Your task to perform on an android device: change timer sound Image 0: 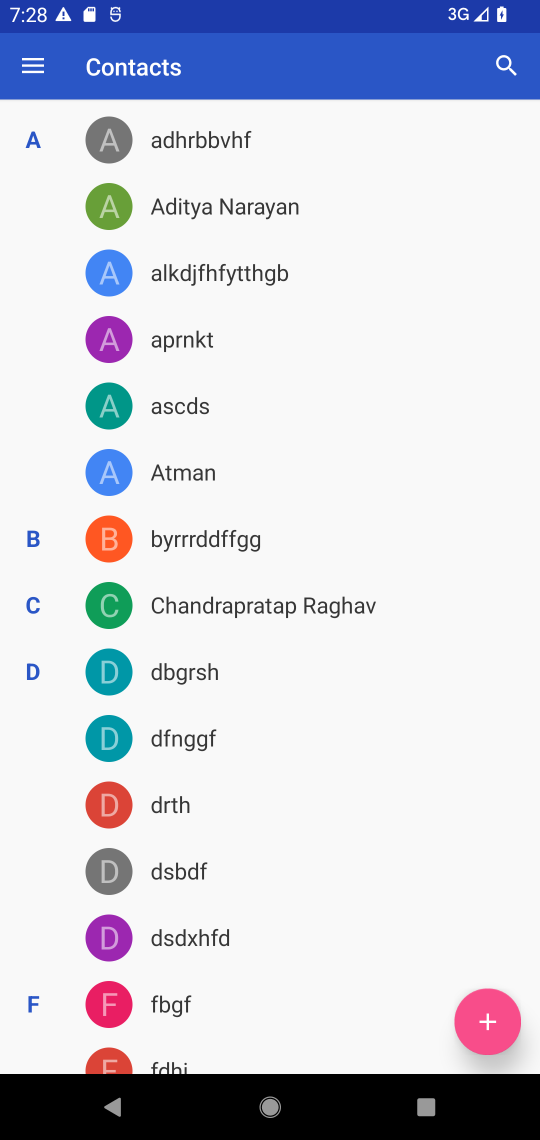
Step 0: press home button
Your task to perform on an android device: change timer sound Image 1: 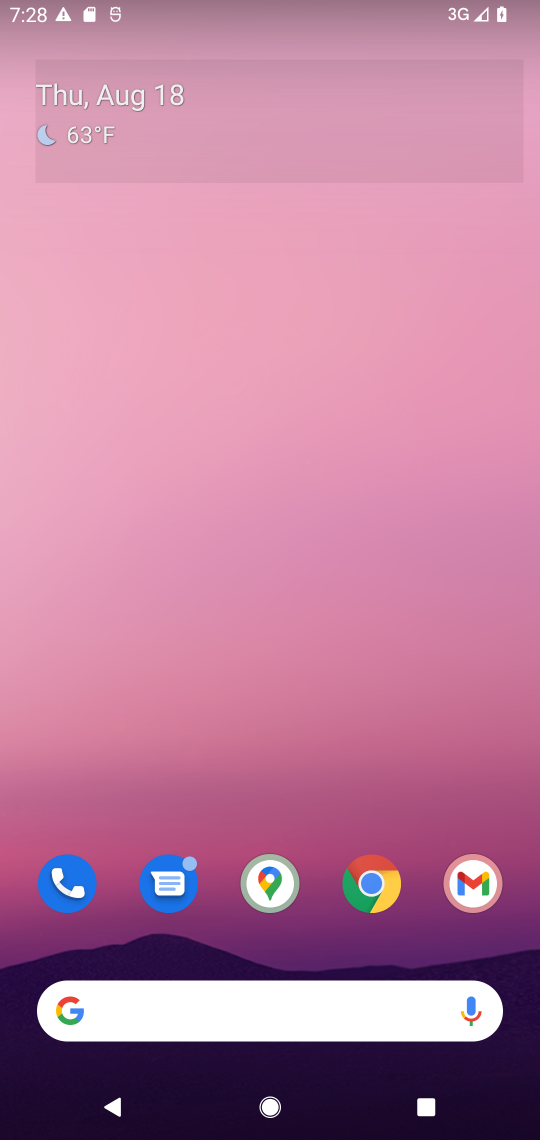
Step 1: drag from (82, 996) to (252, 424)
Your task to perform on an android device: change timer sound Image 2: 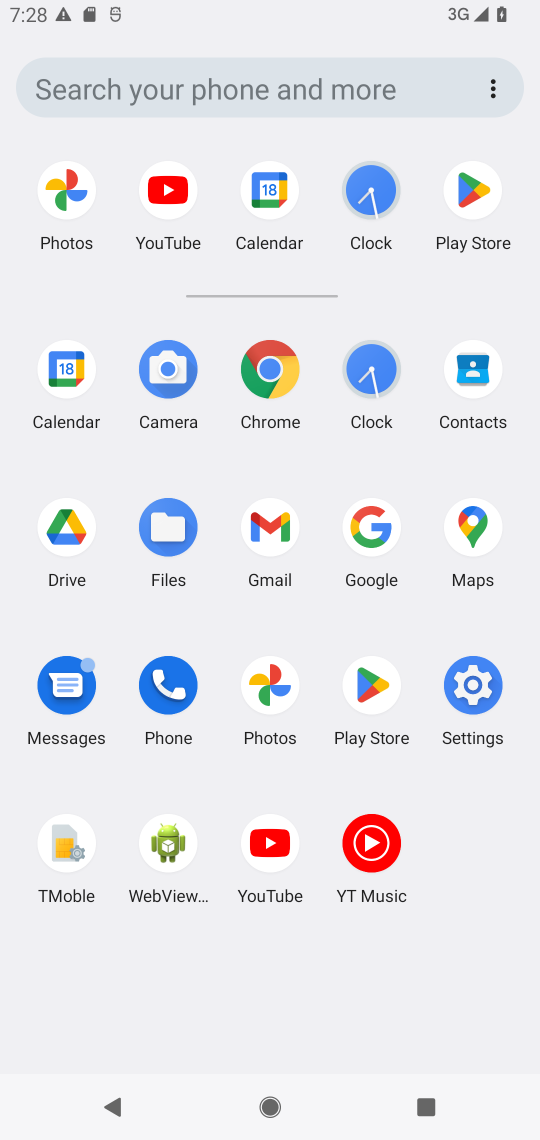
Step 2: click (439, 704)
Your task to perform on an android device: change timer sound Image 3: 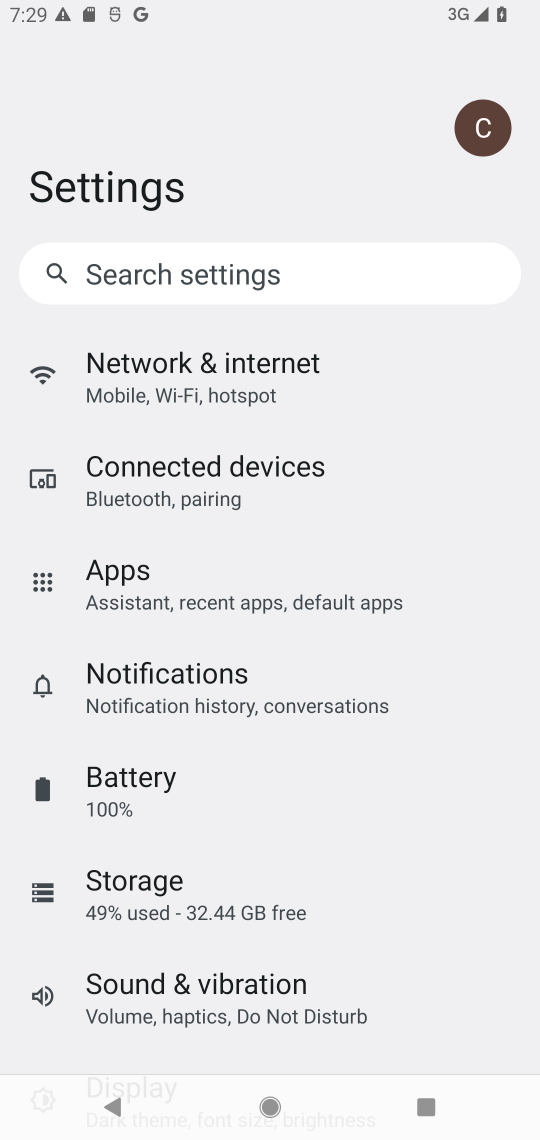
Step 3: press back button
Your task to perform on an android device: change timer sound Image 4: 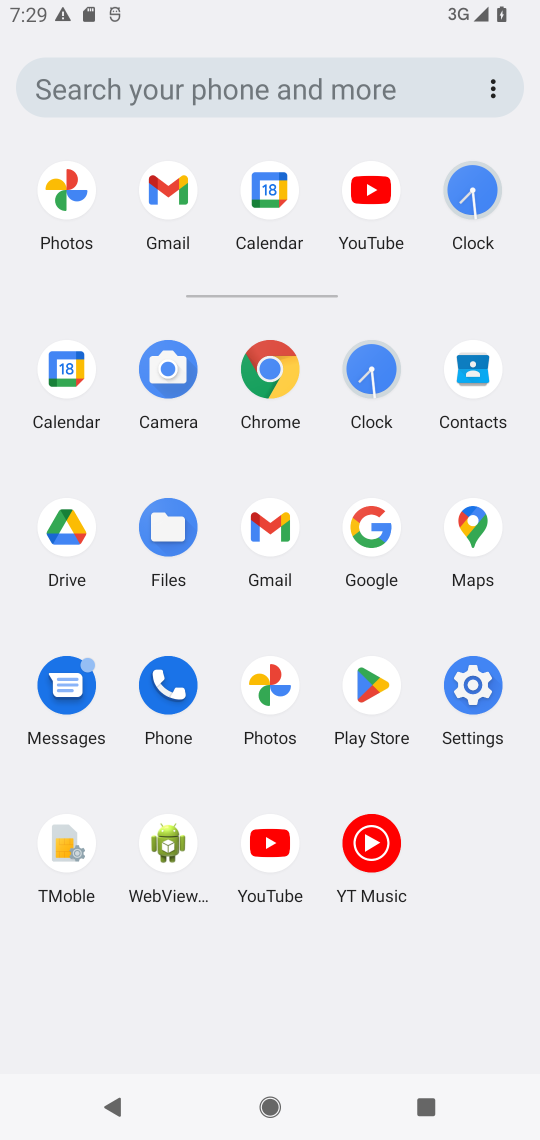
Step 4: click (480, 214)
Your task to perform on an android device: change timer sound Image 5: 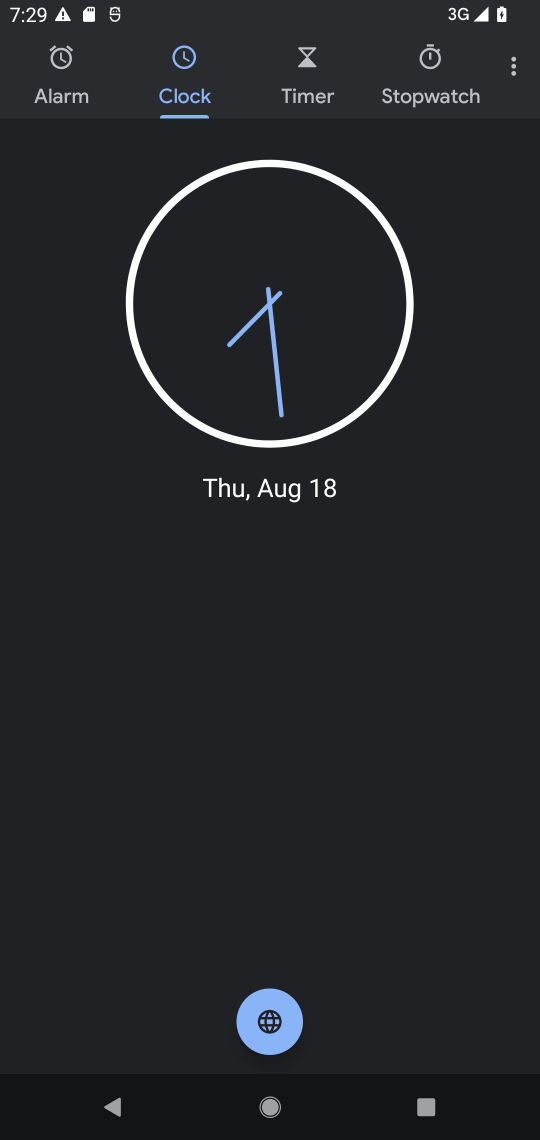
Step 5: click (322, 103)
Your task to perform on an android device: change timer sound Image 6: 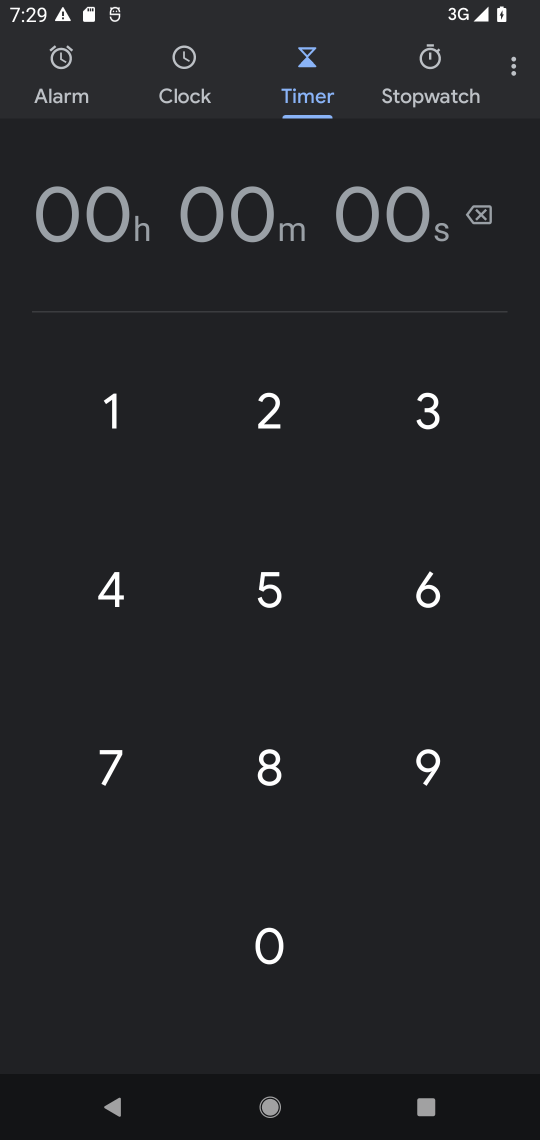
Step 6: click (520, 66)
Your task to perform on an android device: change timer sound Image 7: 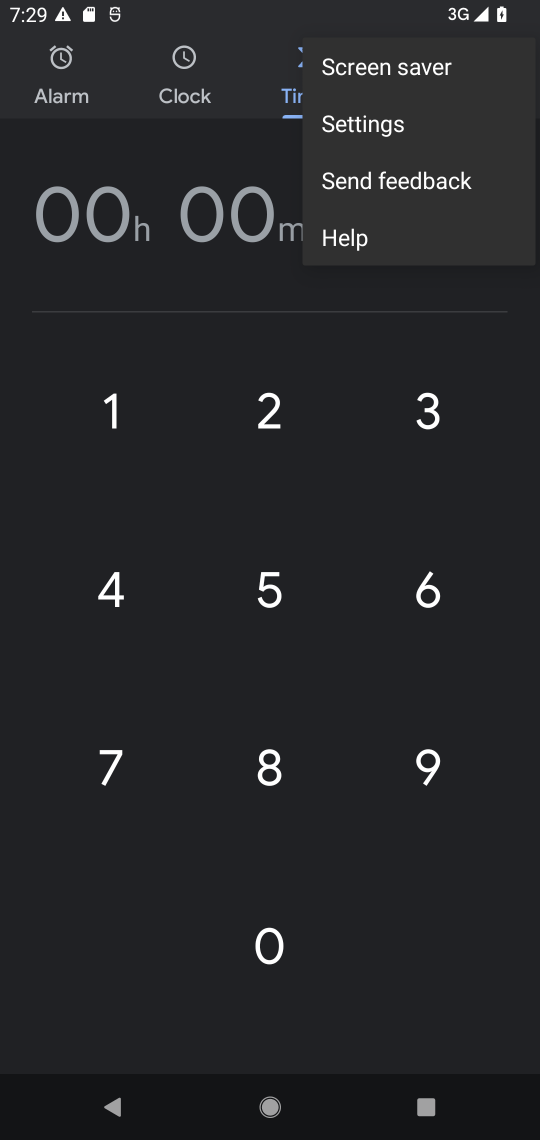
Step 7: click (391, 131)
Your task to perform on an android device: change timer sound Image 8: 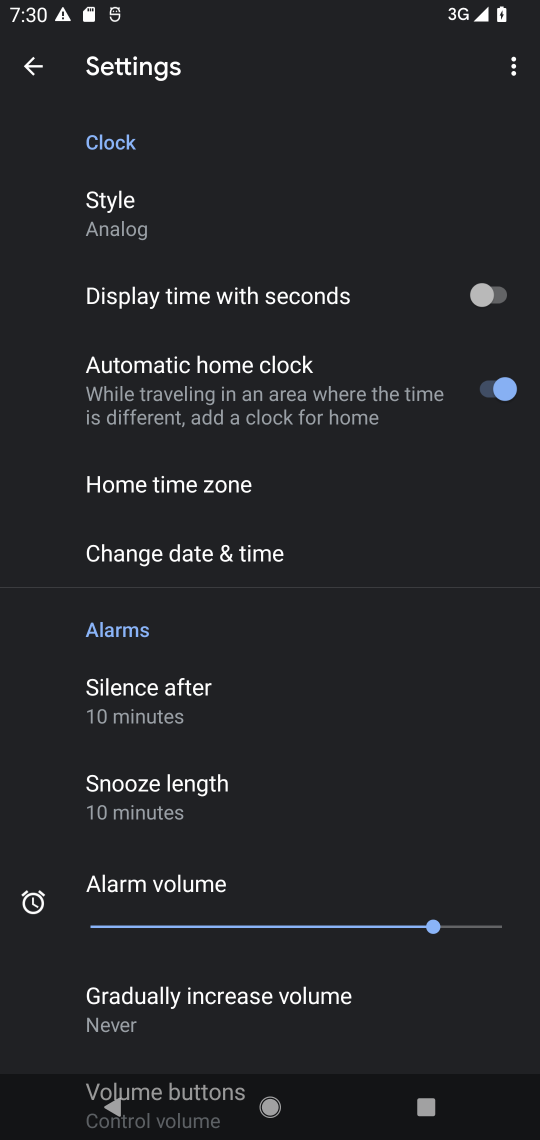
Step 8: click (22, 642)
Your task to perform on an android device: change timer sound Image 9: 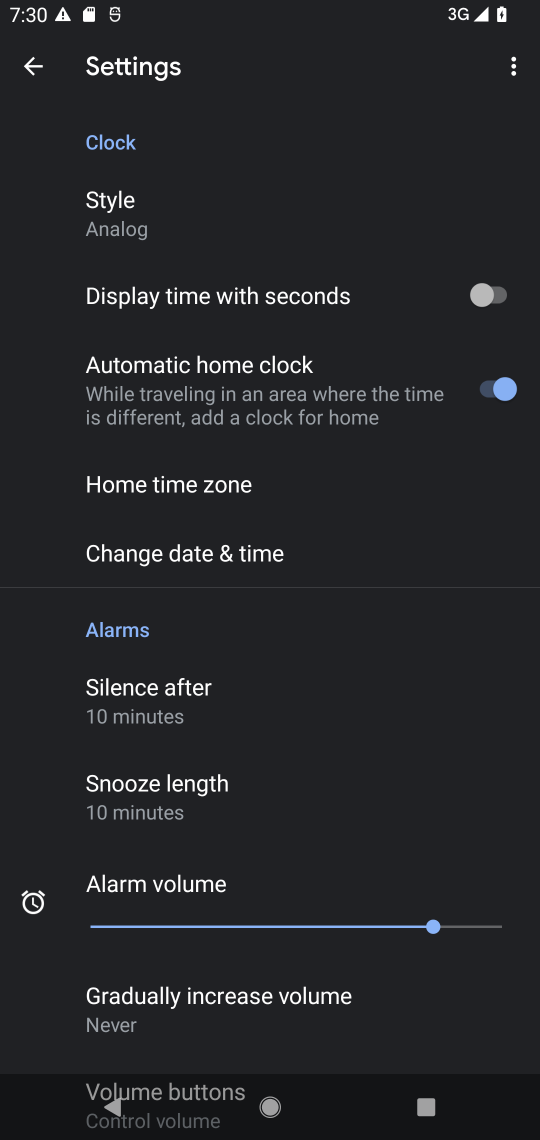
Step 9: drag from (364, 1045) to (127, 252)
Your task to perform on an android device: change timer sound Image 10: 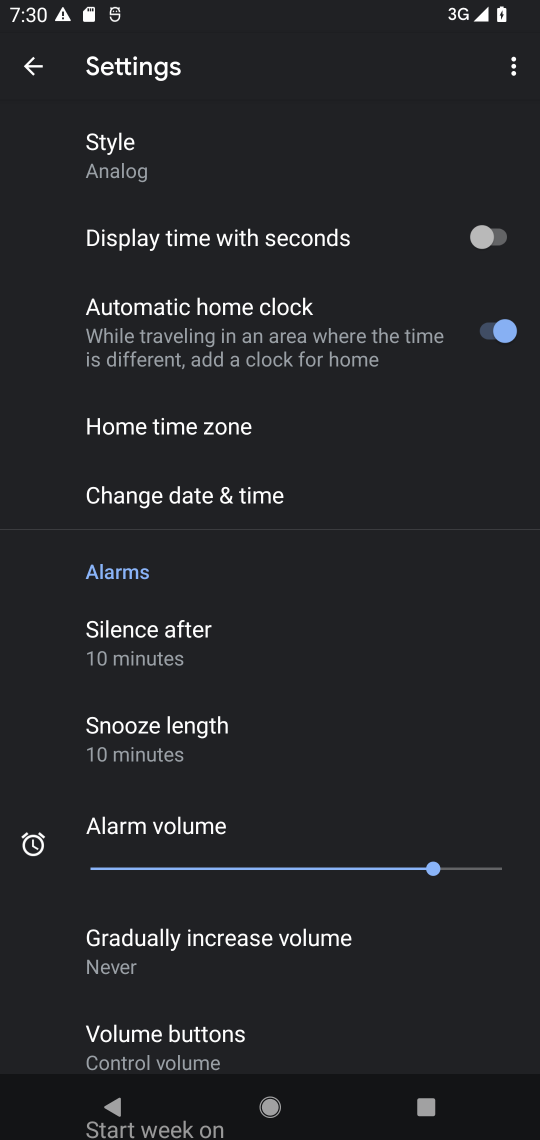
Step 10: drag from (300, 991) to (280, 407)
Your task to perform on an android device: change timer sound Image 11: 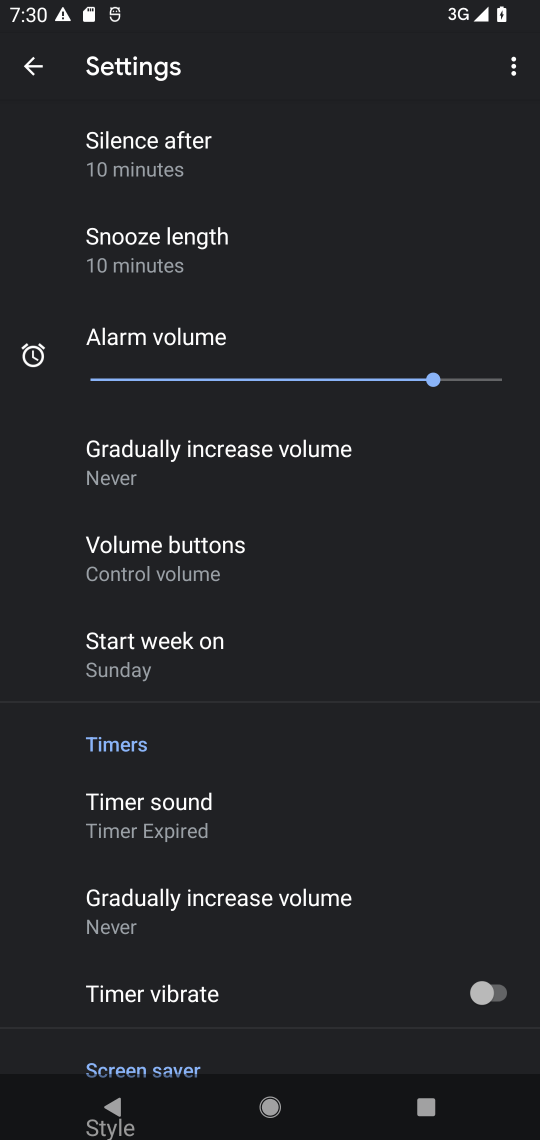
Step 11: click (163, 802)
Your task to perform on an android device: change timer sound Image 12: 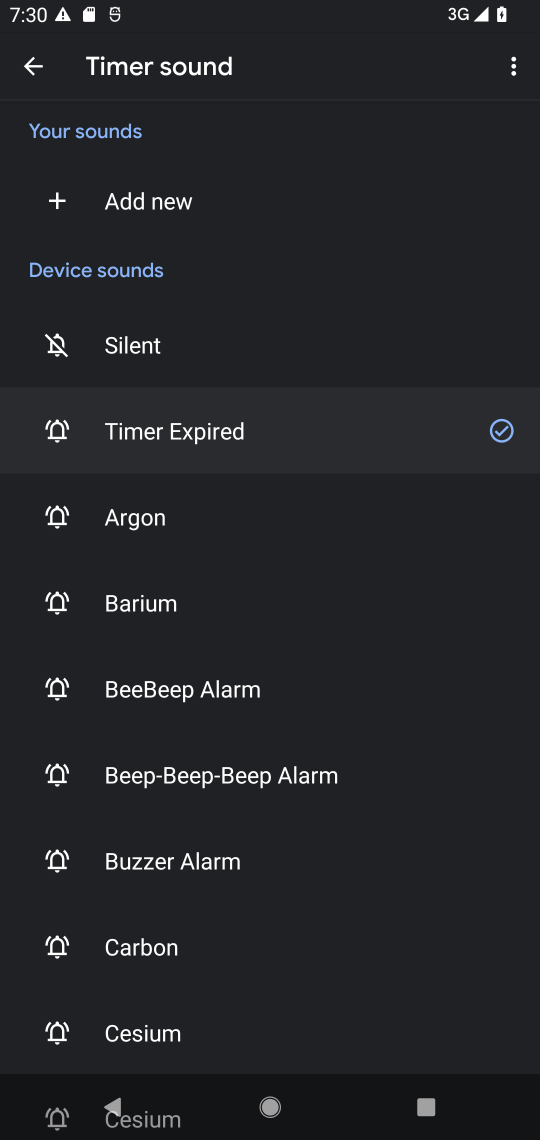
Step 12: click (176, 524)
Your task to perform on an android device: change timer sound Image 13: 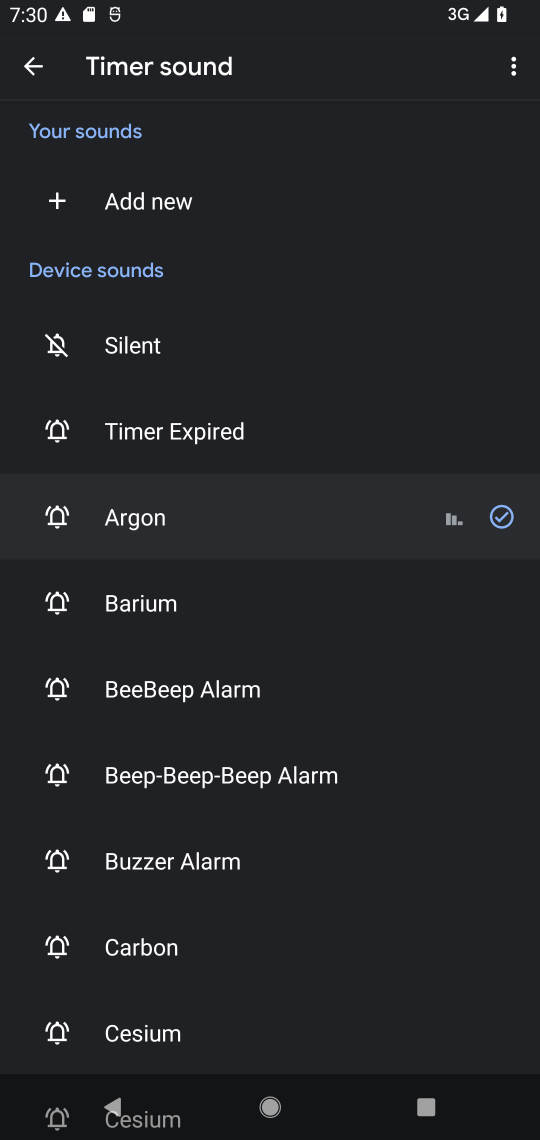
Step 13: task complete